Your task to perform on an android device: find photos in the google photos app Image 0: 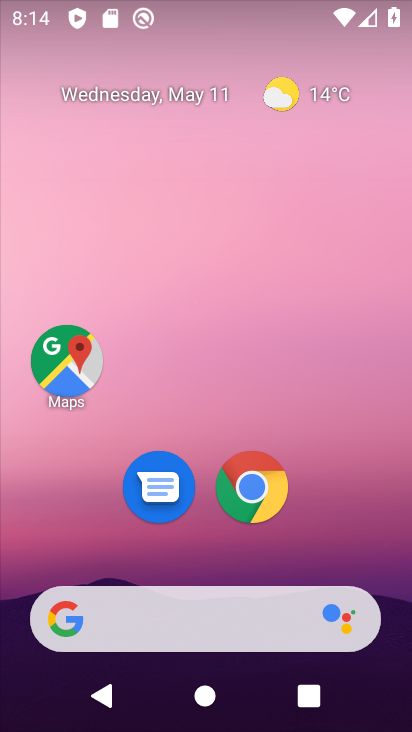
Step 0: drag from (296, 556) to (322, 158)
Your task to perform on an android device: find photos in the google photos app Image 1: 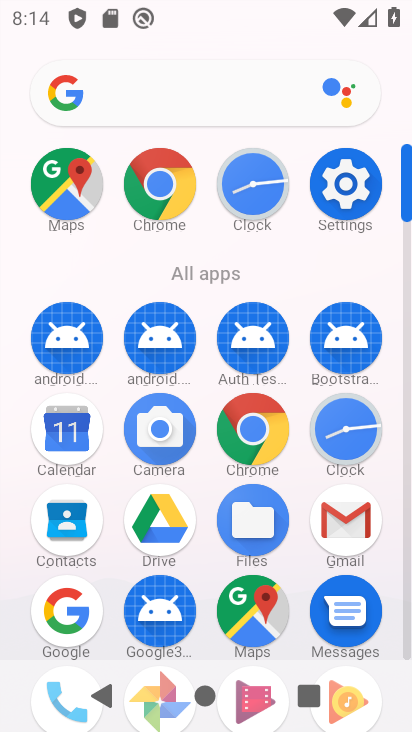
Step 1: drag from (212, 624) to (242, 333)
Your task to perform on an android device: find photos in the google photos app Image 2: 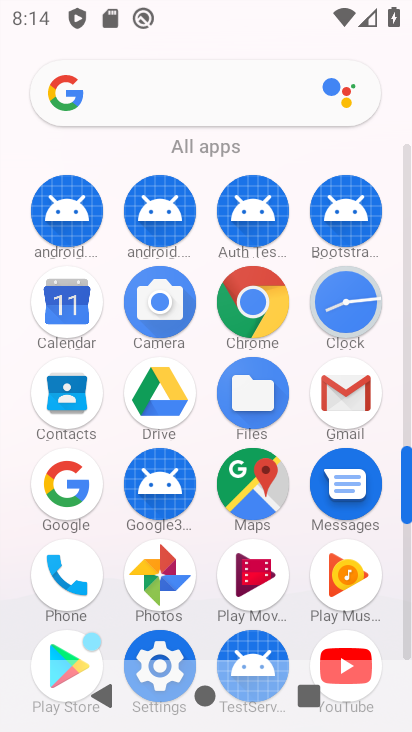
Step 2: click (167, 578)
Your task to perform on an android device: find photos in the google photos app Image 3: 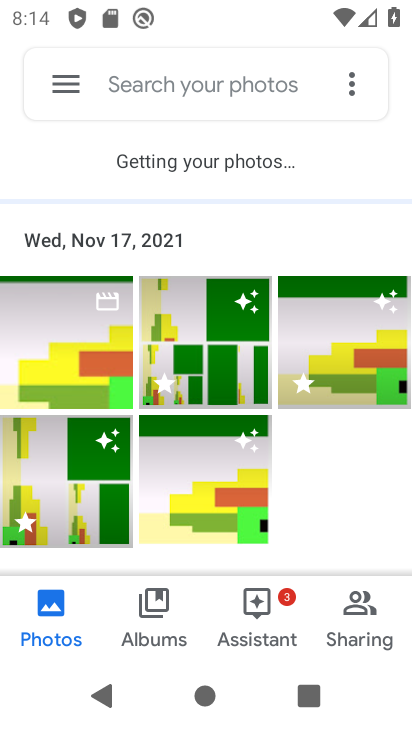
Step 3: task complete